Your task to perform on an android device: see creations saved in the google photos Image 0: 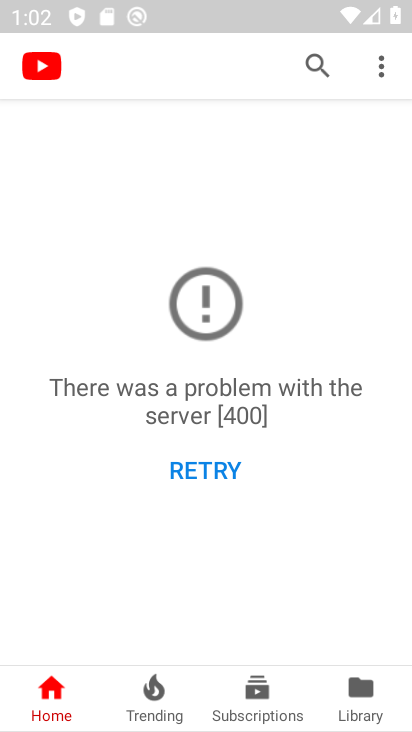
Step 0: press home button
Your task to perform on an android device: see creations saved in the google photos Image 1: 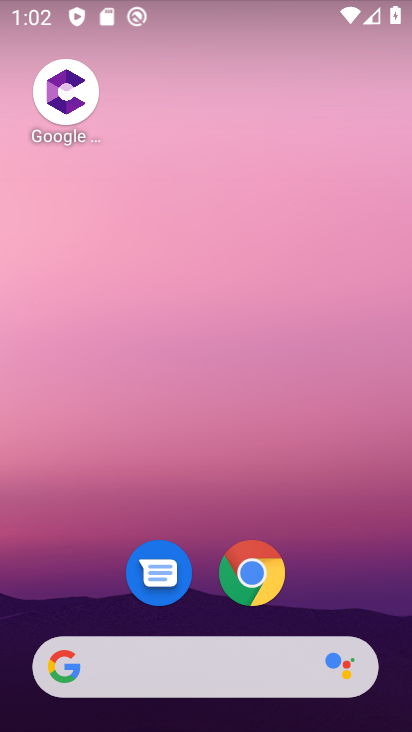
Step 1: drag from (339, 592) to (347, 189)
Your task to perform on an android device: see creations saved in the google photos Image 2: 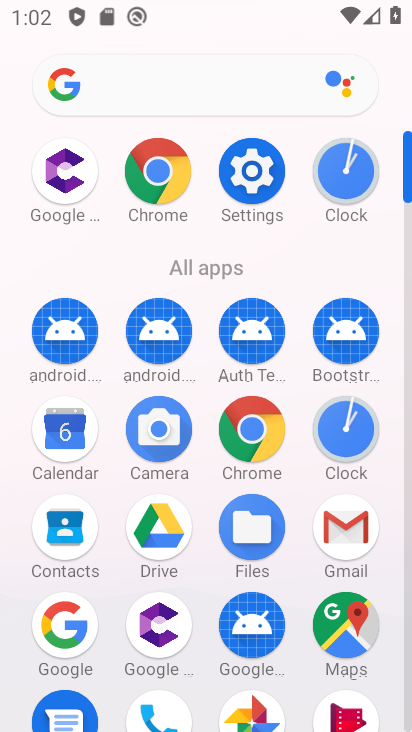
Step 2: drag from (292, 675) to (305, 387)
Your task to perform on an android device: see creations saved in the google photos Image 3: 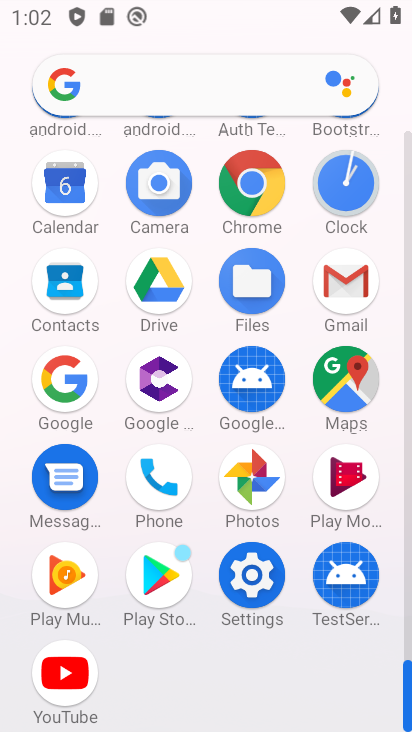
Step 3: click (272, 471)
Your task to perform on an android device: see creations saved in the google photos Image 4: 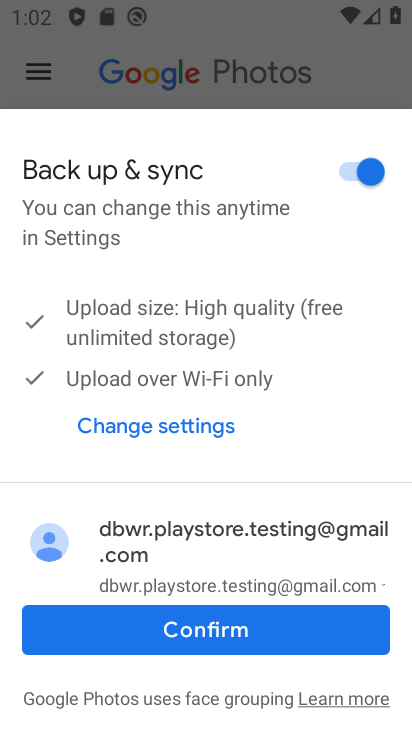
Step 4: click (258, 630)
Your task to perform on an android device: see creations saved in the google photos Image 5: 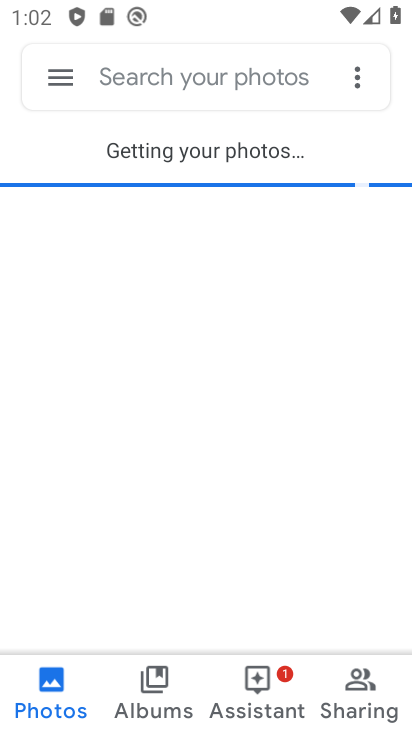
Step 5: click (195, 84)
Your task to perform on an android device: see creations saved in the google photos Image 6: 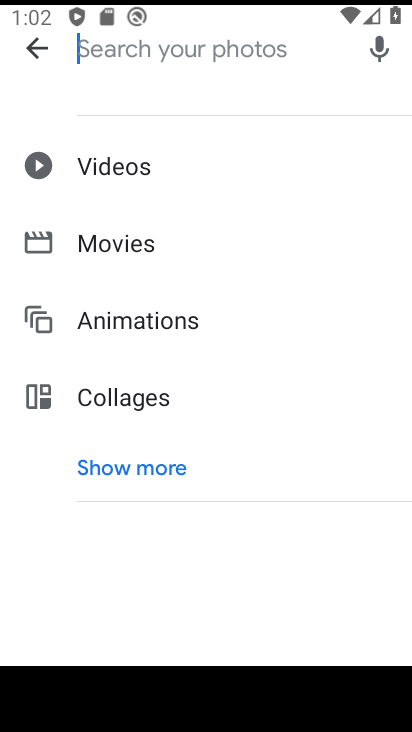
Step 6: click (130, 473)
Your task to perform on an android device: see creations saved in the google photos Image 7: 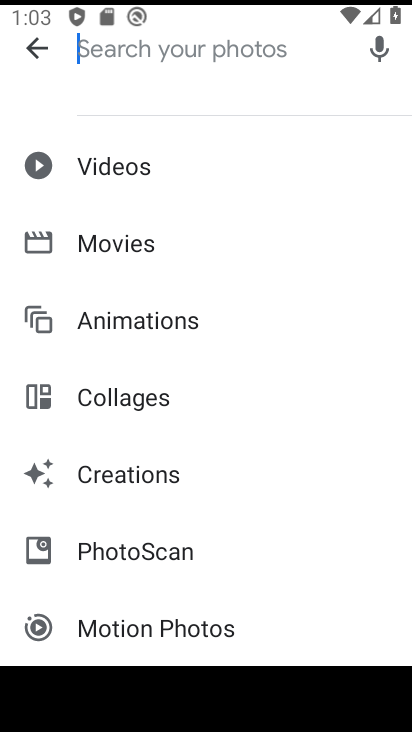
Step 7: click (146, 476)
Your task to perform on an android device: see creations saved in the google photos Image 8: 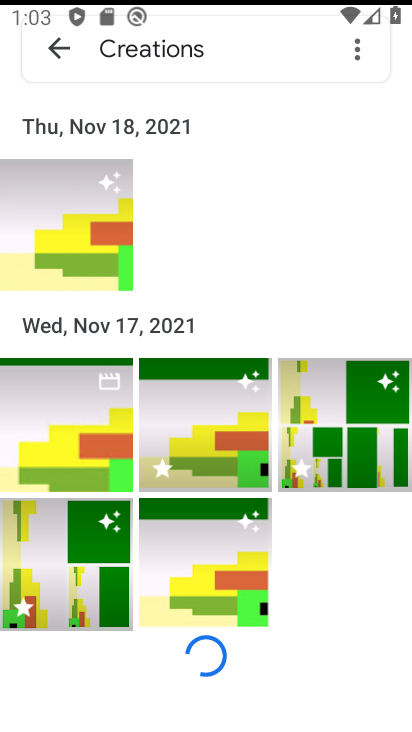
Step 8: task complete